Your task to perform on an android device: Go to Google maps Image 0: 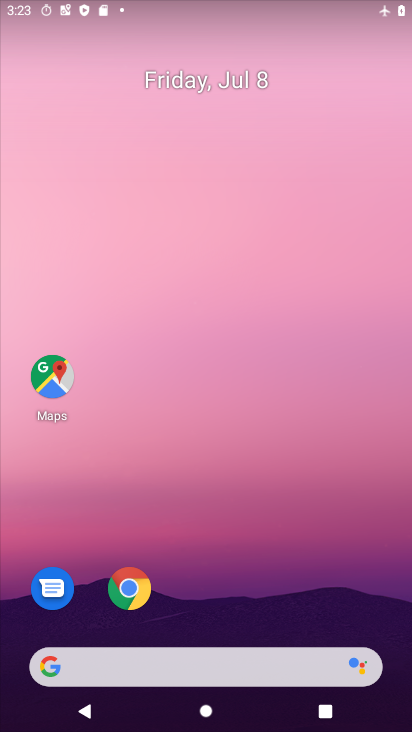
Step 0: press home button
Your task to perform on an android device: Go to Google maps Image 1: 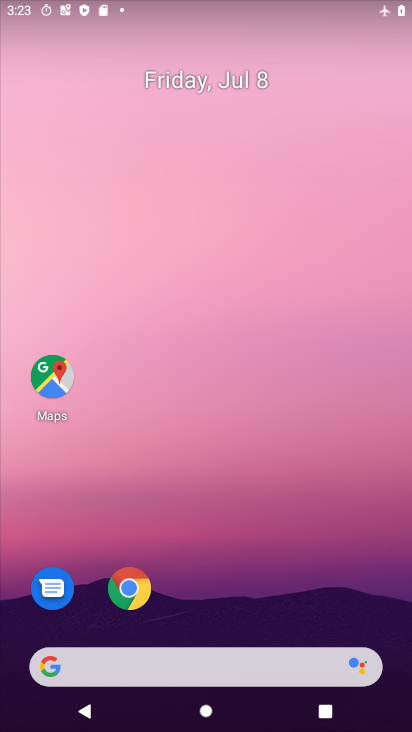
Step 1: drag from (237, 617) to (239, 142)
Your task to perform on an android device: Go to Google maps Image 2: 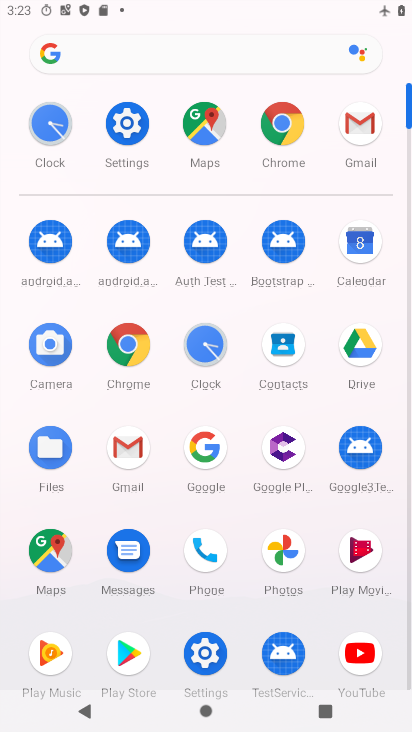
Step 2: click (205, 141)
Your task to perform on an android device: Go to Google maps Image 3: 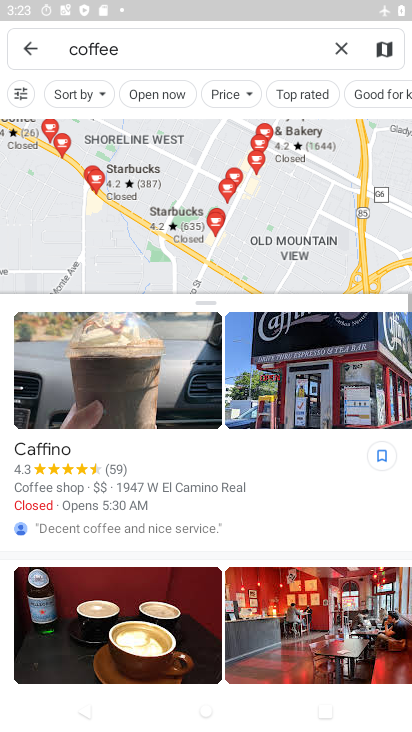
Step 3: task complete